Your task to perform on an android device: Search for razer thresher on walmart.com, select the first entry, and add it to the cart. Image 0: 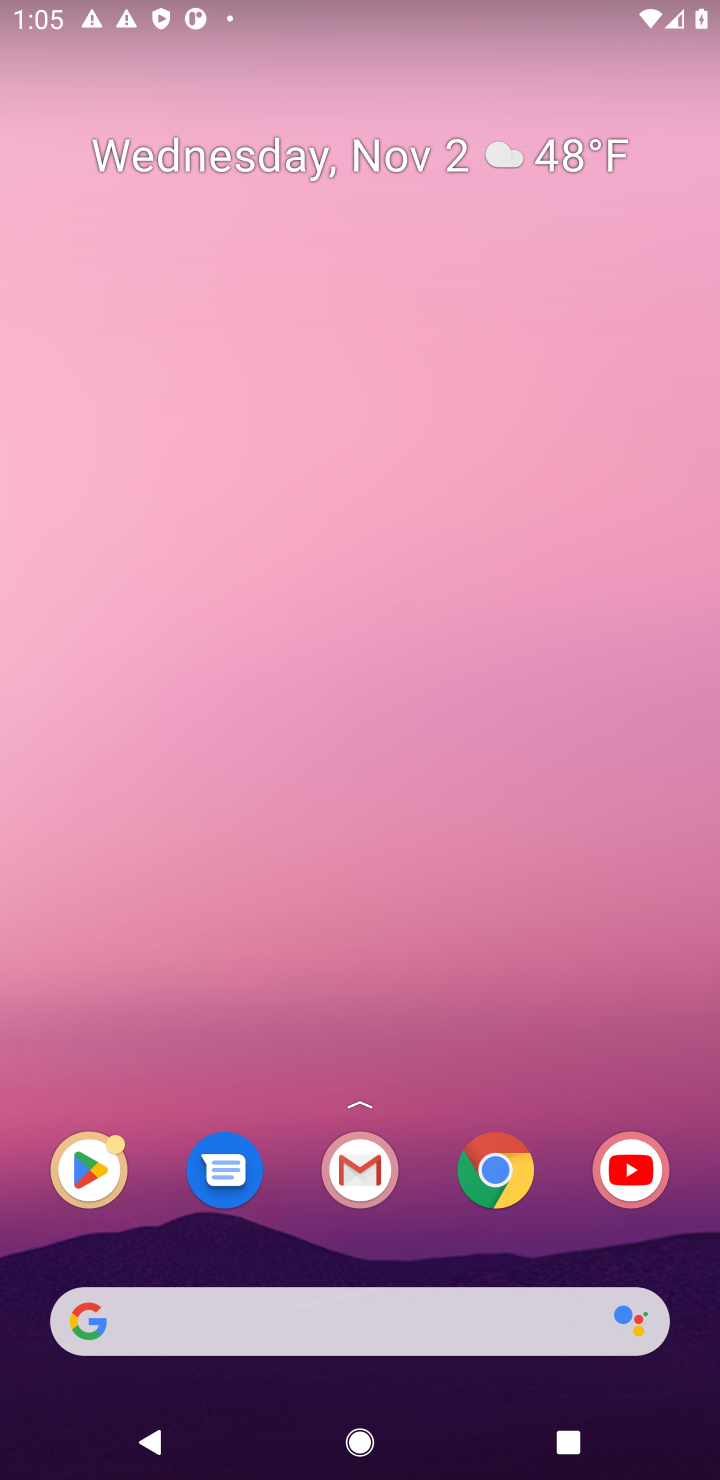
Step 0: drag from (382, 1332) to (383, 1088)
Your task to perform on an android device: Search for razer thresher on walmart.com, select the first entry, and add it to the cart. Image 1: 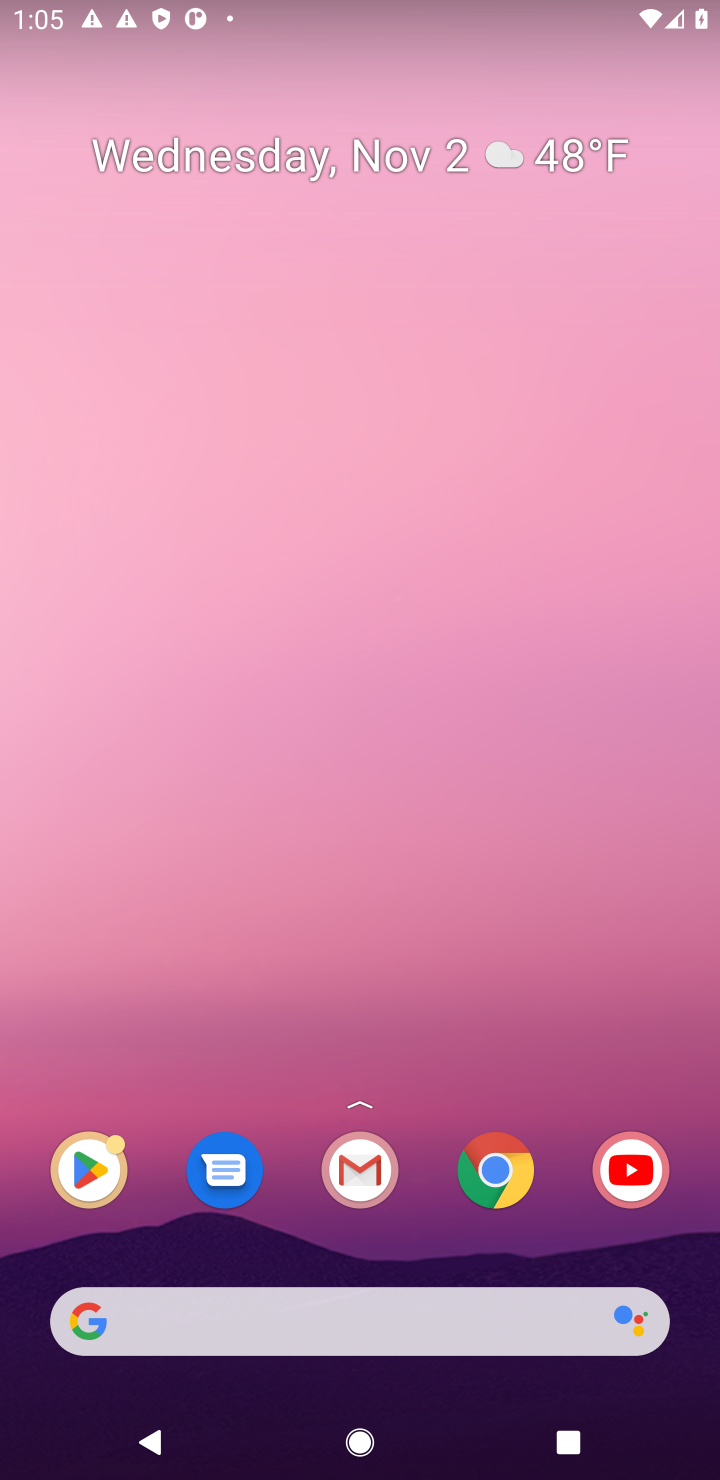
Step 1: drag from (374, 1186) to (406, 854)
Your task to perform on an android device: Search for razer thresher on walmart.com, select the first entry, and add it to the cart. Image 2: 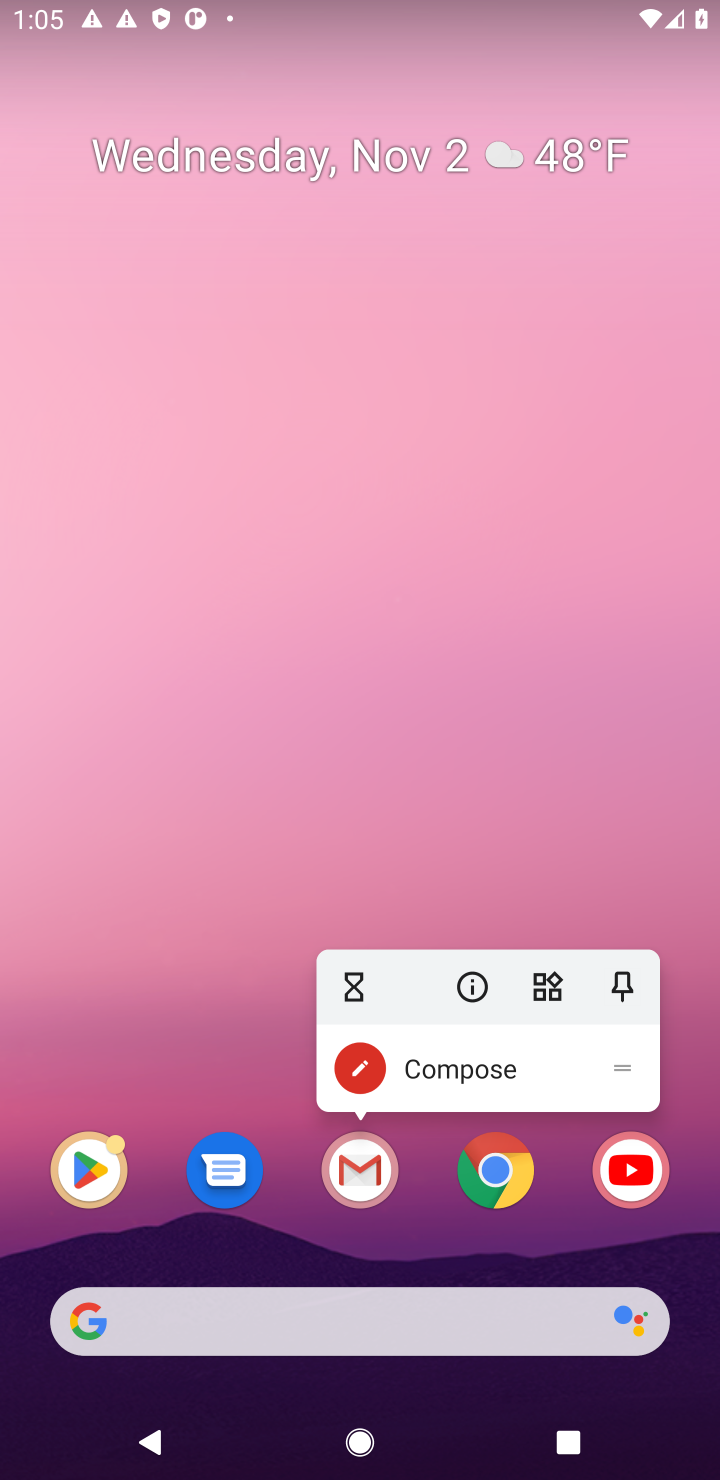
Step 2: click (319, 738)
Your task to perform on an android device: Search for razer thresher on walmart.com, select the first entry, and add it to the cart. Image 3: 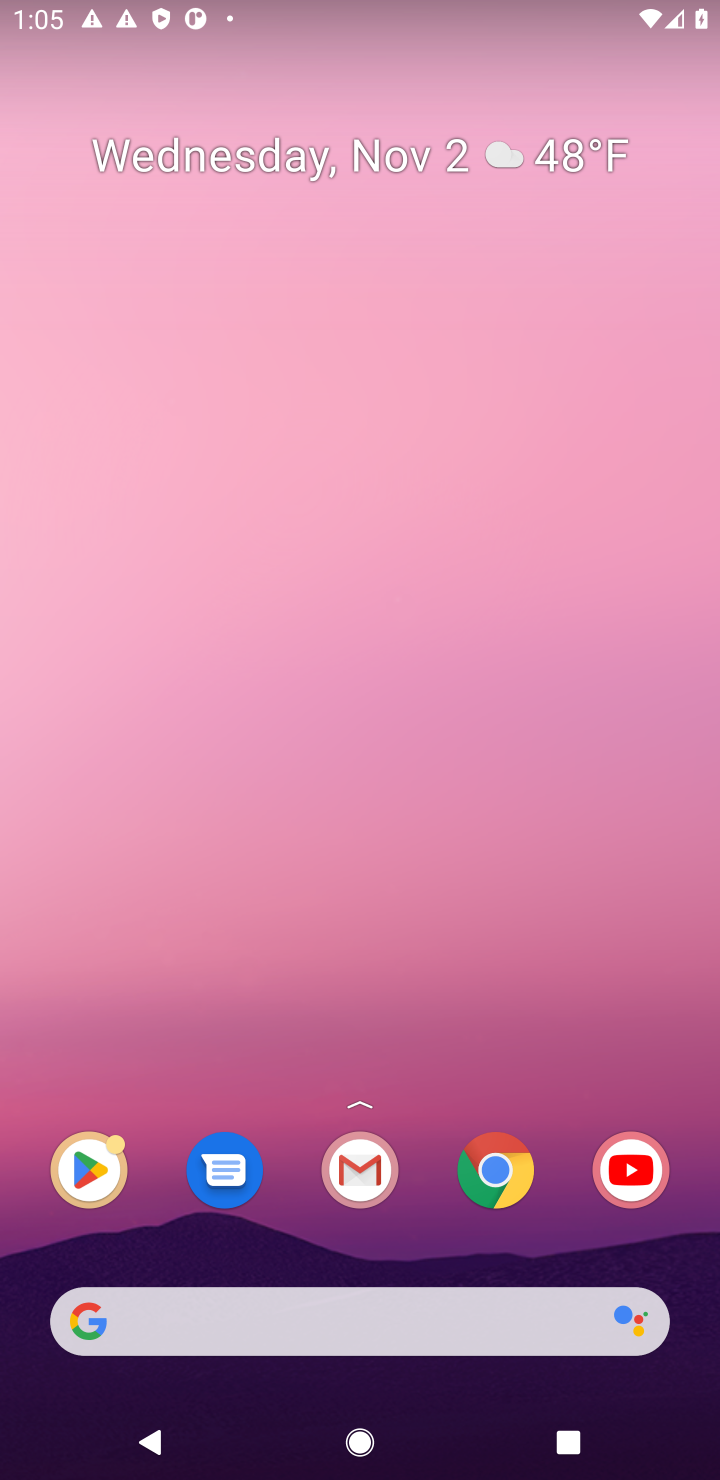
Step 3: drag from (372, 860) to (372, 485)
Your task to perform on an android device: Search for razer thresher on walmart.com, select the first entry, and add it to the cart. Image 4: 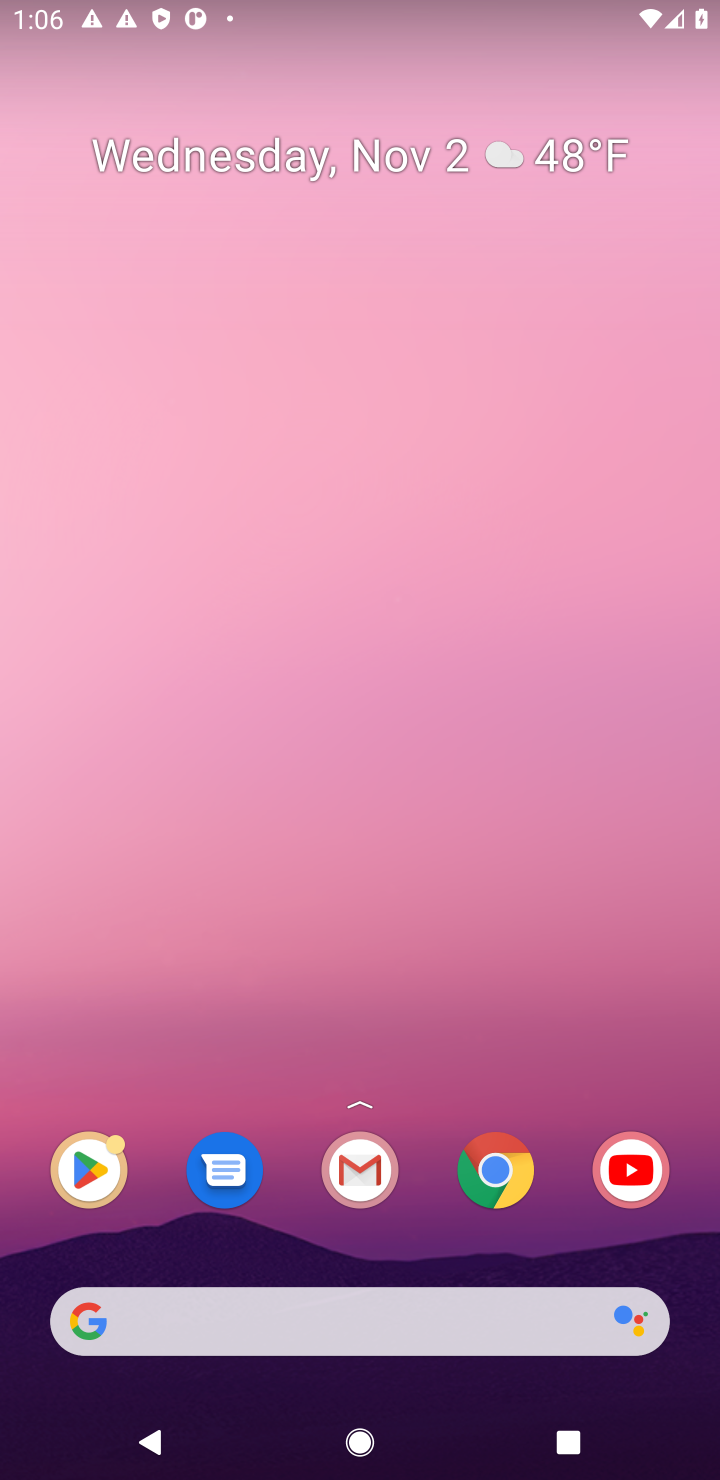
Step 4: click (484, 1179)
Your task to perform on an android device: Search for razer thresher on walmart.com, select the first entry, and add it to the cart. Image 5: 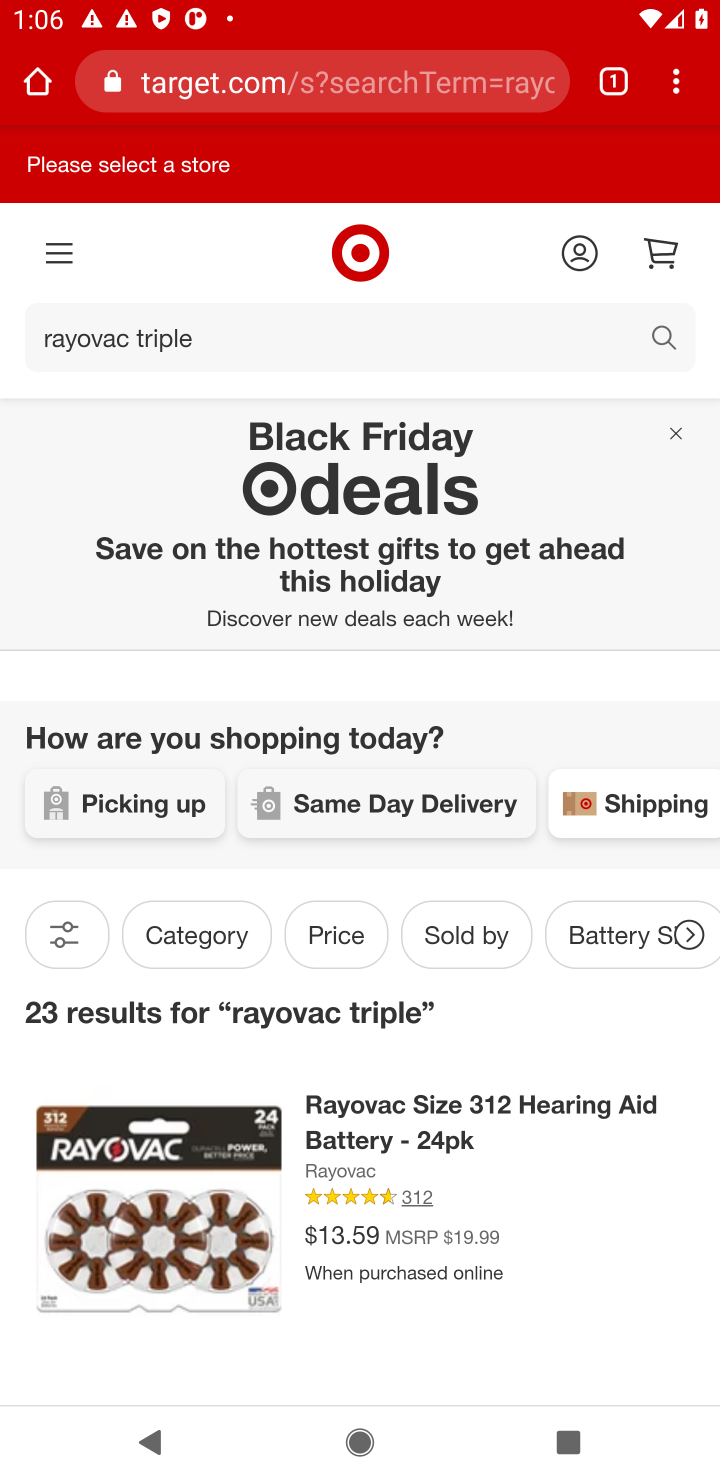
Step 5: click (381, 65)
Your task to perform on an android device: Search for razer thresher on walmart.com, select the first entry, and add it to the cart. Image 6: 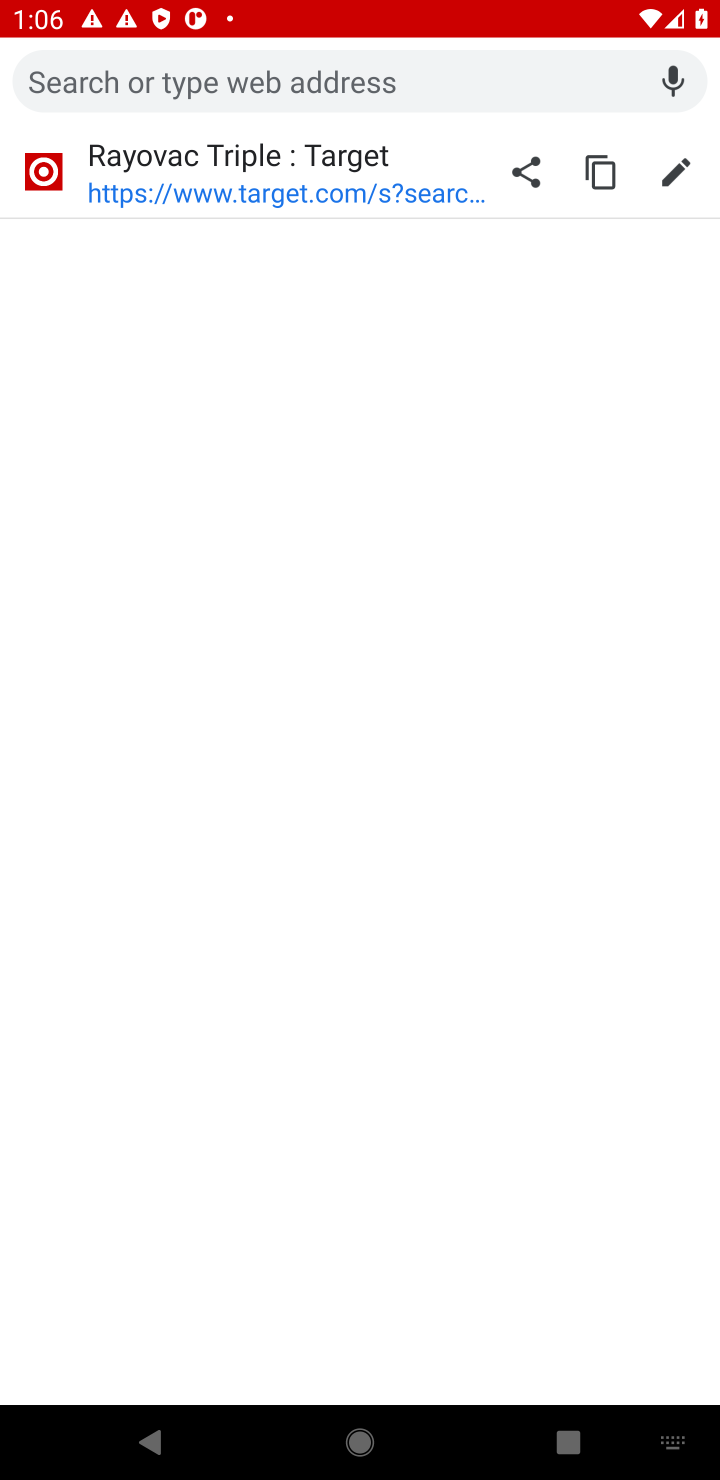
Step 6: type "walmart.com"
Your task to perform on an android device: Search for razer thresher on walmart.com, select the first entry, and add it to the cart. Image 7: 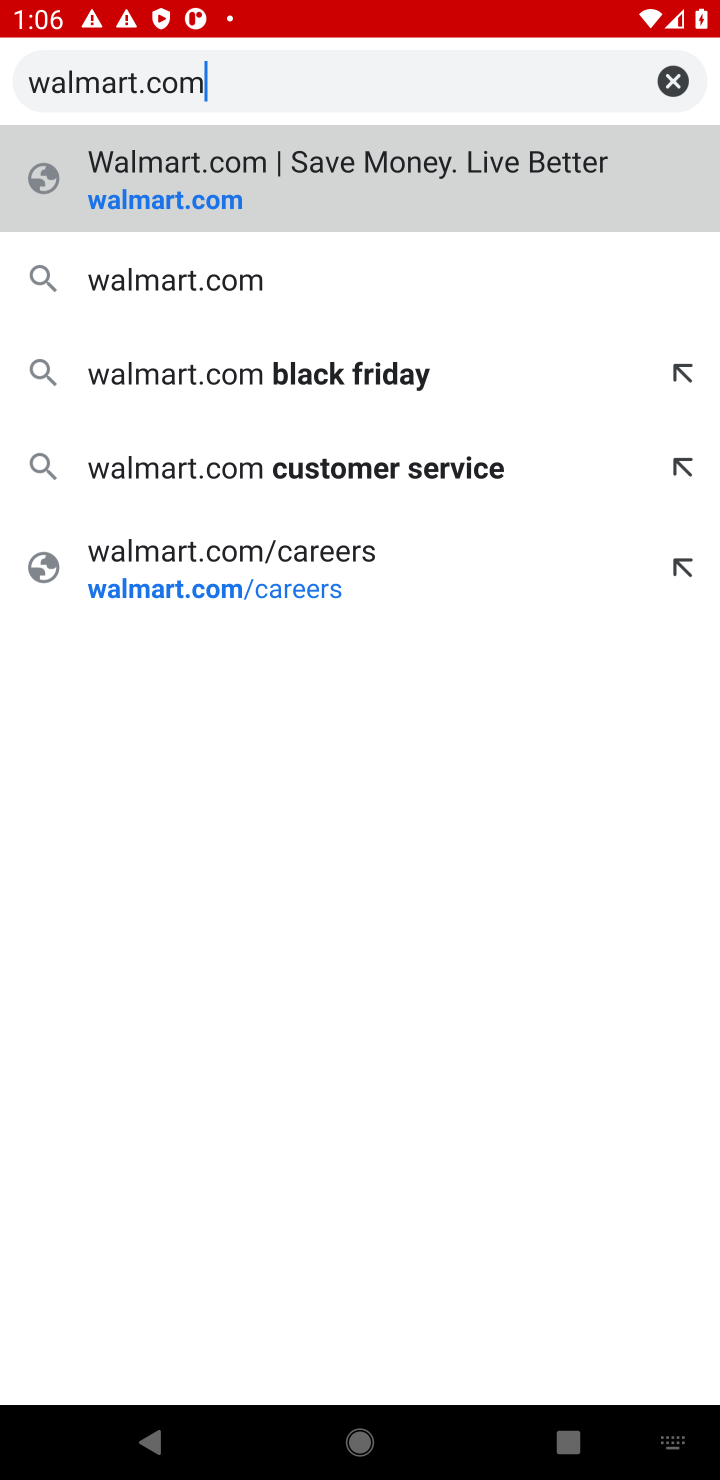
Step 7: click (547, 182)
Your task to perform on an android device: Search for razer thresher on walmart.com, select the first entry, and add it to the cart. Image 8: 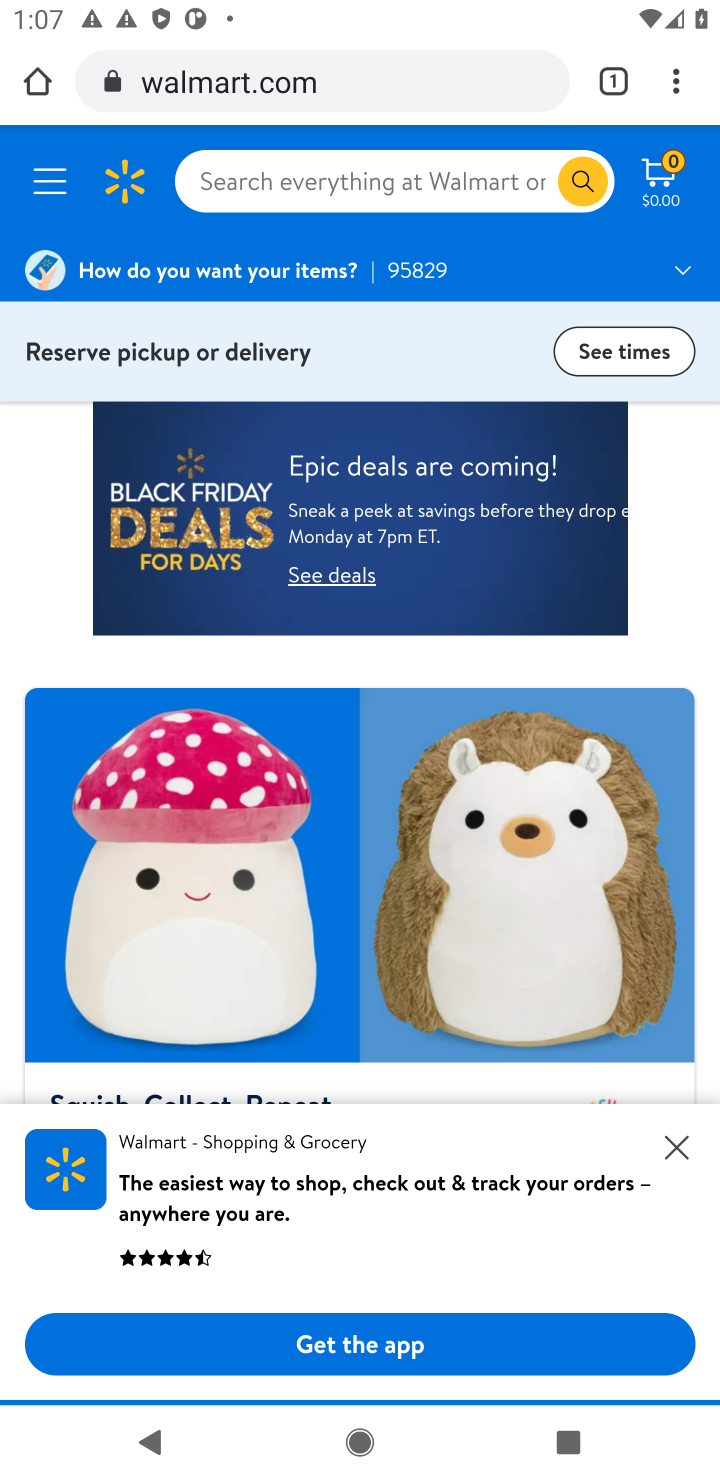
Step 8: click (508, 174)
Your task to perform on an android device: Search for razer thresher on walmart.com, select the first entry, and add it to the cart. Image 9: 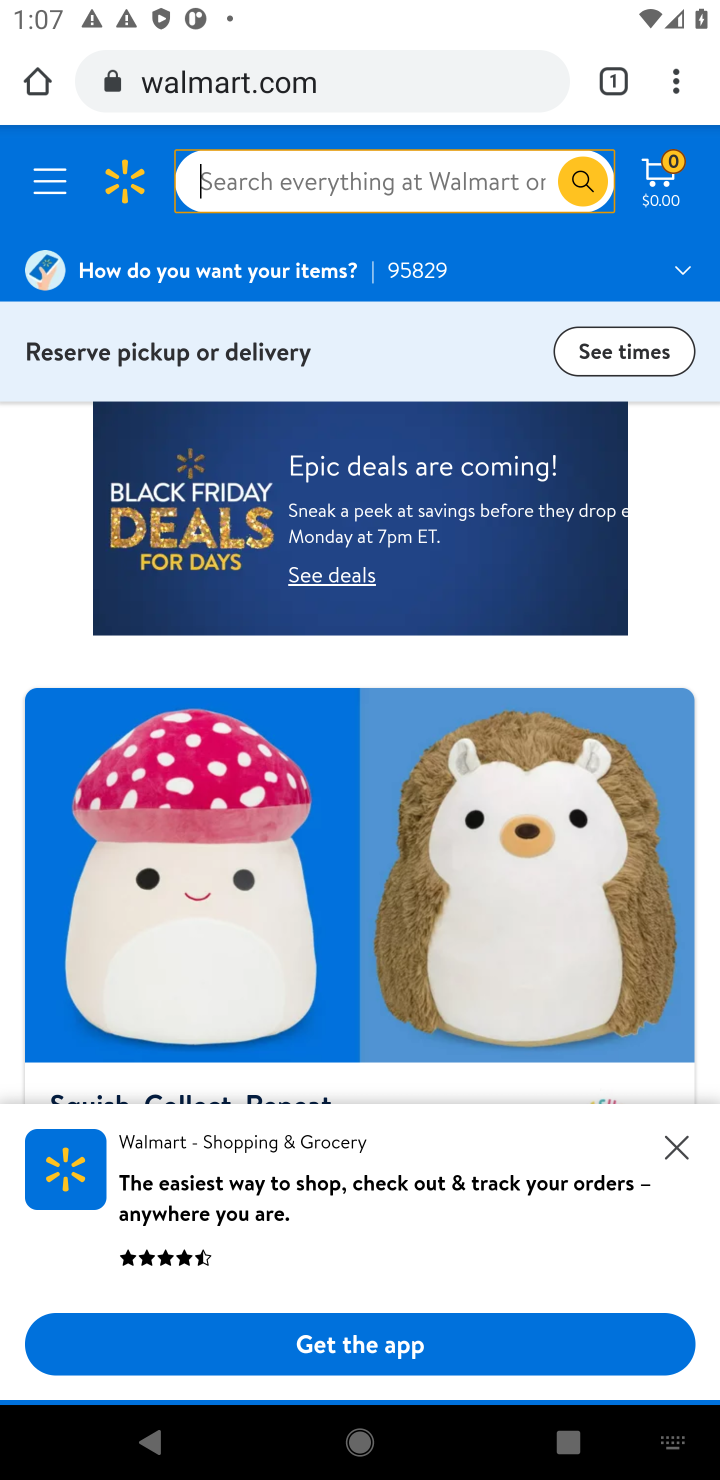
Step 9: type "razer thresher"
Your task to perform on an android device: Search for razer thresher on walmart.com, select the first entry, and add it to the cart. Image 10: 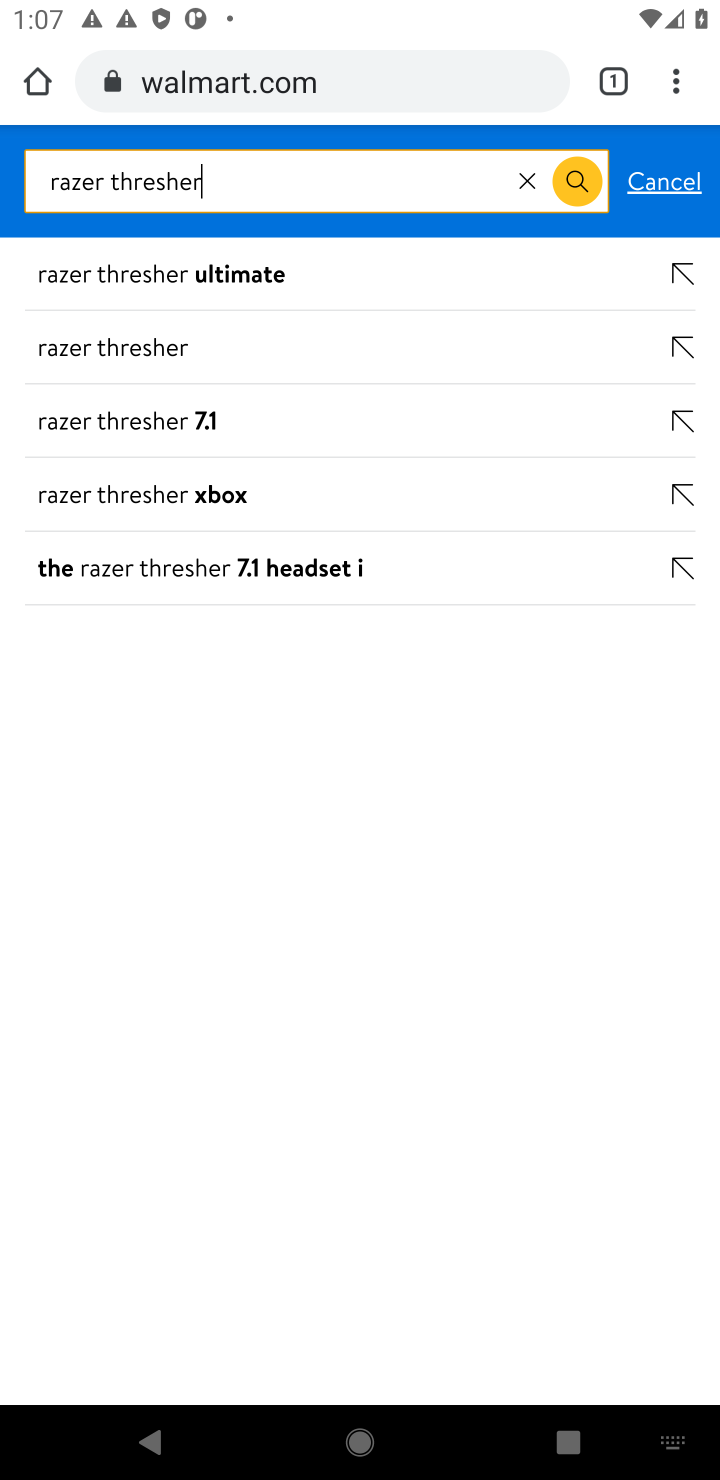
Step 10: click (269, 349)
Your task to perform on an android device: Search for razer thresher on walmart.com, select the first entry, and add it to the cart. Image 11: 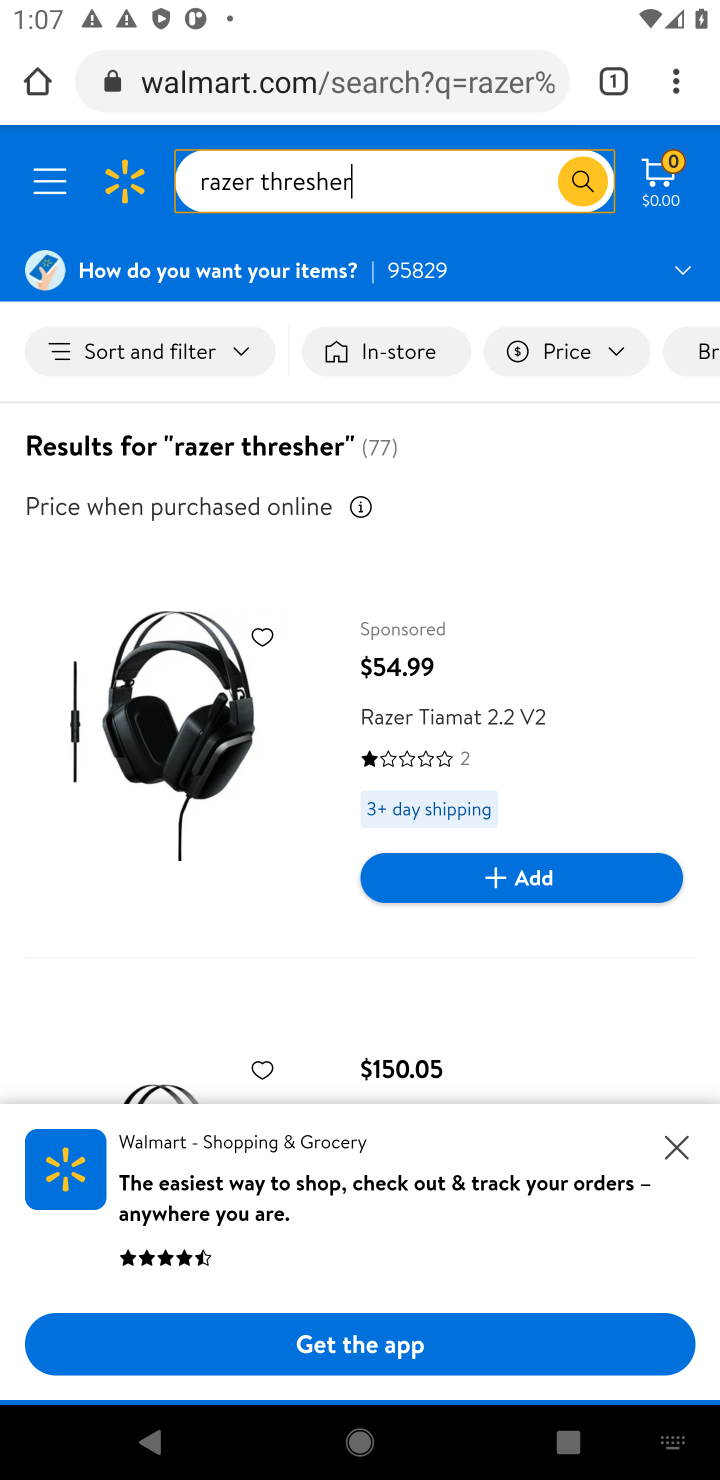
Step 11: click (539, 885)
Your task to perform on an android device: Search for razer thresher on walmart.com, select the first entry, and add it to the cart. Image 12: 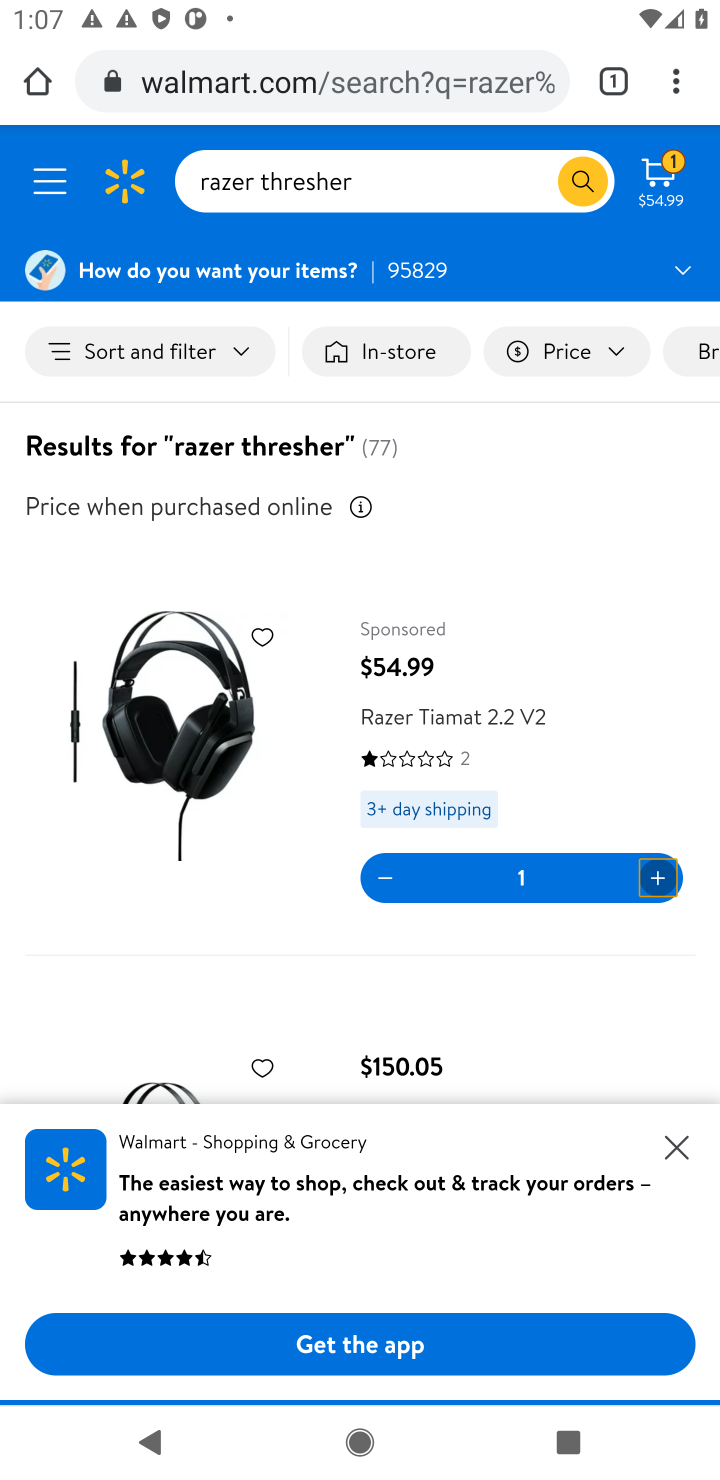
Step 12: task complete